Your task to perform on an android device: refresh tabs in the chrome app Image 0: 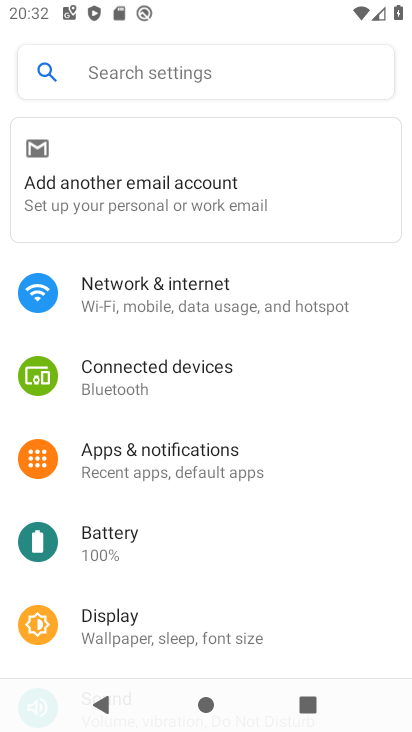
Step 0: press home button
Your task to perform on an android device: refresh tabs in the chrome app Image 1: 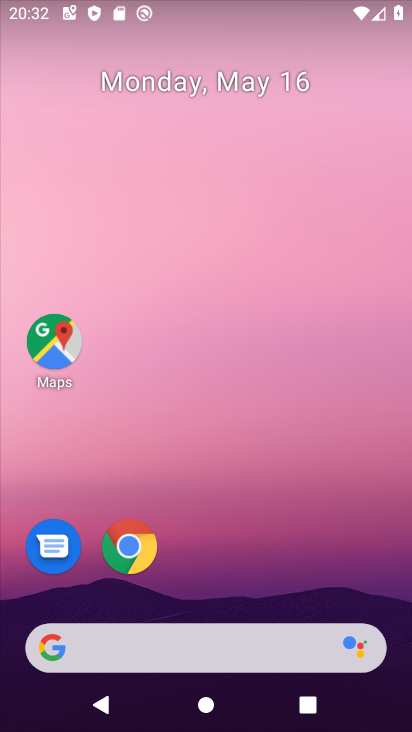
Step 1: click (133, 555)
Your task to perform on an android device: refresh tabs in the chrome app Image 2: 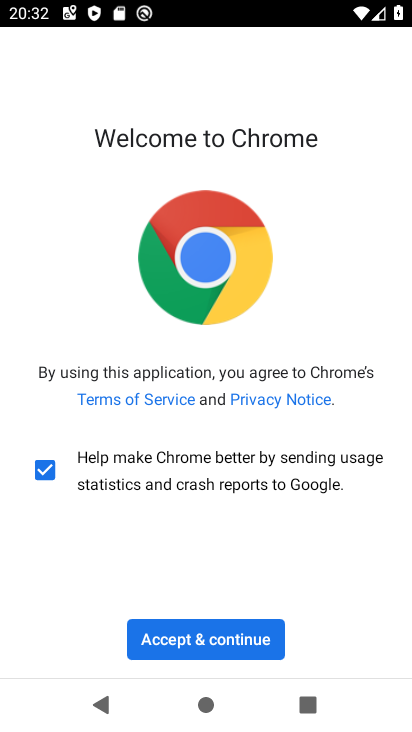
Step 2: click (221, 653)
Your task to perform on an android device: refresh tabs in the chrome app Image 3: 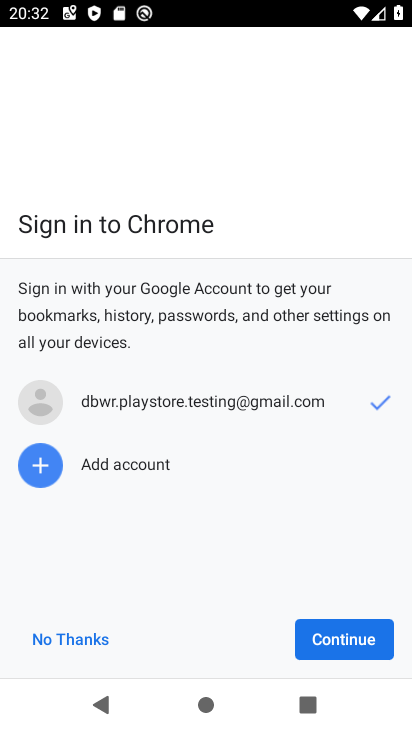
Step 3: click (351, 645)
Your task to perform on an android device: refresh tabs in the chrome app Image 4: 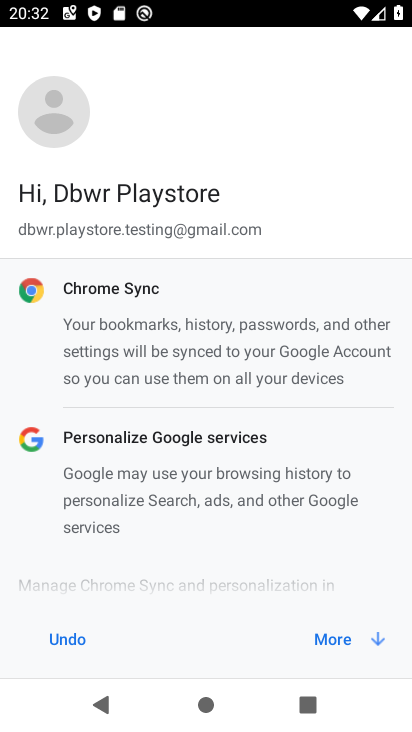
Step 4: click (351, 645)
Your task to perform on an android device: refresh tabs in the chrome app Image 5: 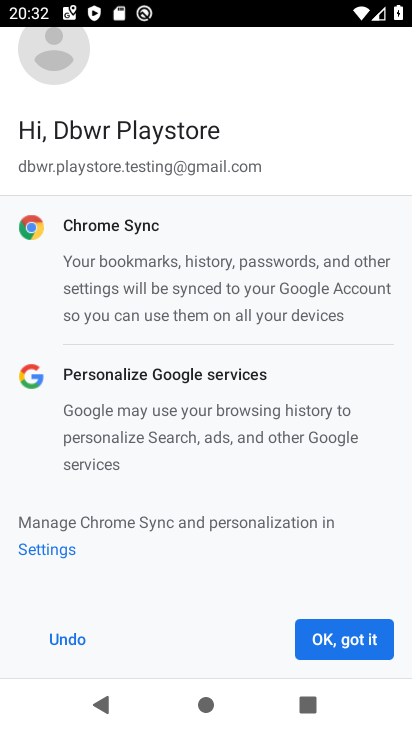
Step 5: click (351, 645)
Your task to perform on an android device: refresh tabs in the chrome app Image 6: 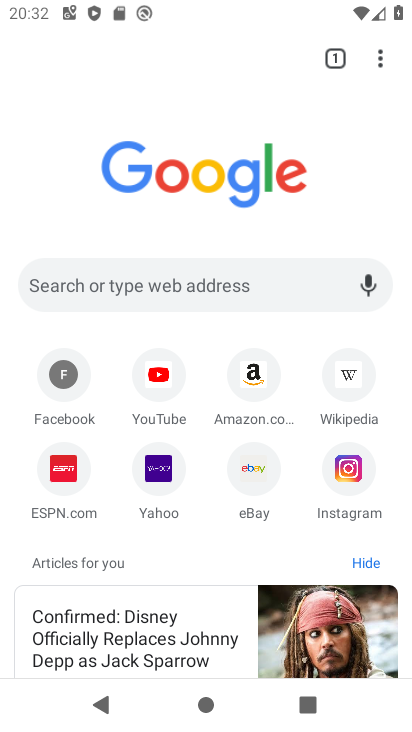
Step 6: click (369, 60)
Your task to perform on an android device: refresh tabs in the chrome app Image 7: 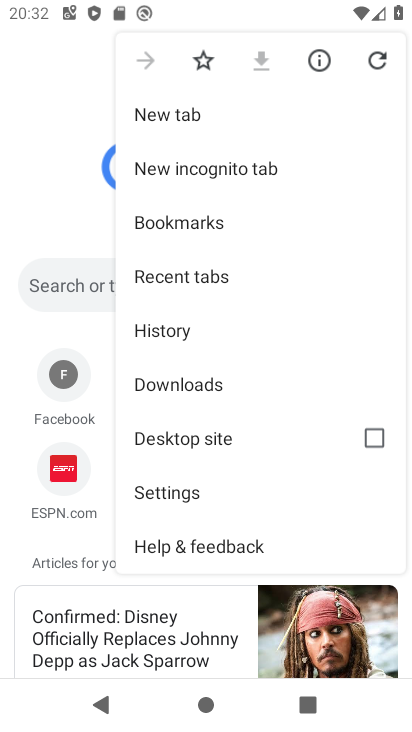
Step 7: click (381, 58)
Your task to perform on an android device: refresh tabs in the chrome app Image 8: 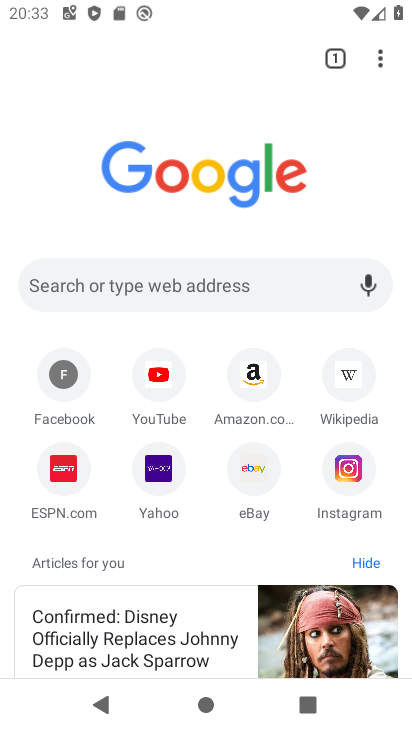
Step 8: task complete